Your task to perform on an android device: Clear the cart on amazon. Add usb-c to the cart on amazon Image 0: 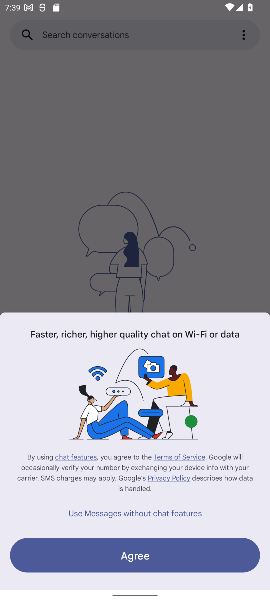
Step 0: press home button
Your task to perform on an android device: Clear the cart on amazon. Add usb-c to the cart on amazon Image 1: 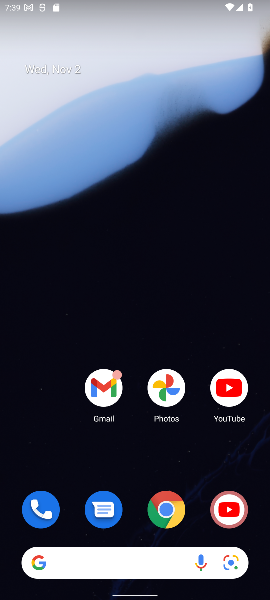
Step 1: click (118, 555)
Your task to perform on an android device: Clear the cart on amazon. Add usb-c to the cart on amazon Image 2: 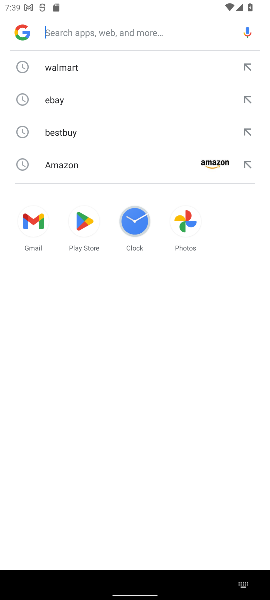
Step 2: type "amazon"
Your task to perform on an android device: Clear the cart on amazon. Add usb-c to the cart on amazon Image 3: 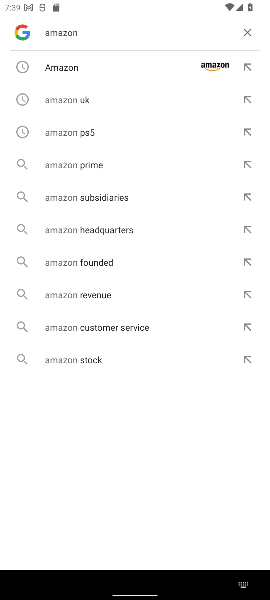
Step 3: click (72, 66)
Your task to perform on an android device: Clear the cart on amazon. Add usb-c to the cart on amazon Image 4: 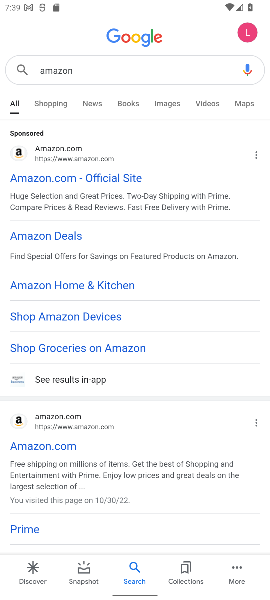
Step 4: click (53, 449)
Your task to perform on an android device: Clear the cart on amazon. Add usb-c to the cart on amazon Image 5: 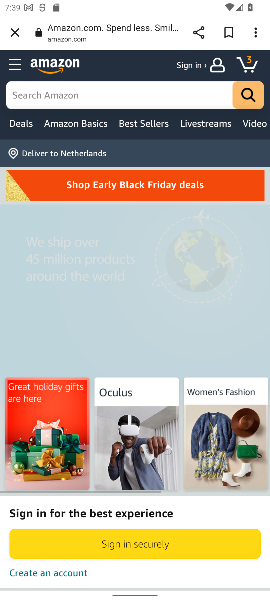
Step 5: click (249, 62)
Your task to perform on an android device: Clear the cart on amazon. Add usb-c to the cart on amazon Image 6: 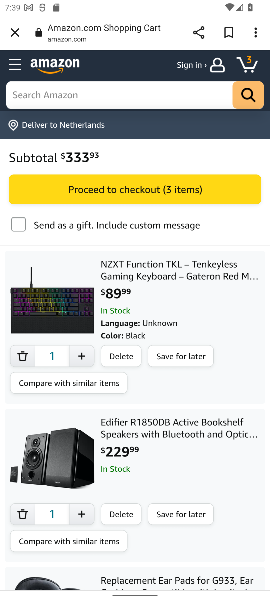
Step 6: click (21, 358)
Your task to perform on an android device: Clear the cart on amazon. Add usb-c to the cart on amazon Image 7: 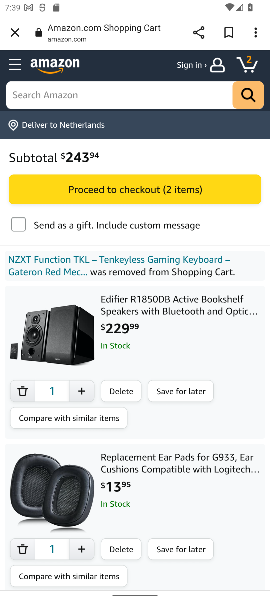
Step 7: click (22, 393)
Your task to perform on an android device: Clear the cart on amazon. Add usb-c to the cart on amazon Image 8: 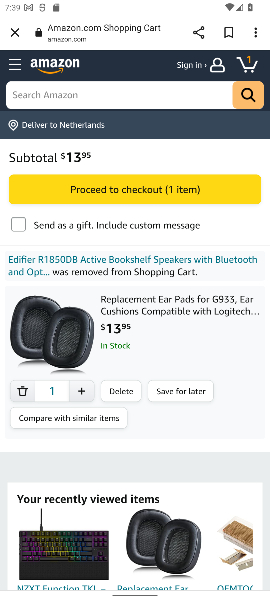
Step 8: click (22, 392)
Your task to perform on an android device: Clear the cart on amazon. Add usb-c to the cart on amazon Image 9: 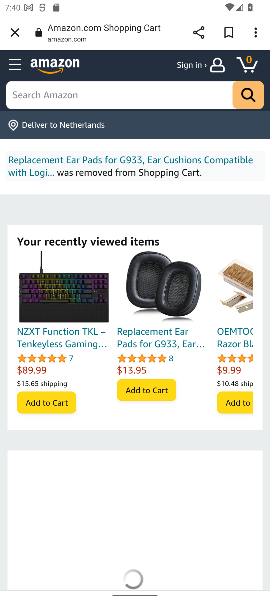
Step 9: click (111, 89)
Your task to perform on an android device: Clear the cart on amazon. Add usb-c to the cart on amazon Image 10: 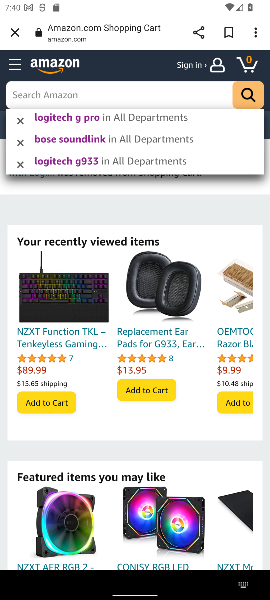
Step 10: type "usb-c "
Your task to perform on an android device: Clear the cart on amazon. Add usb-c to the cart on amazon Image 11: 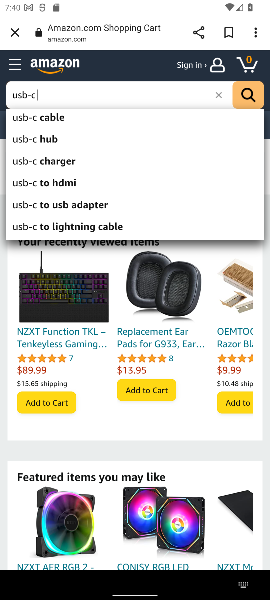
Step 11: click (249, 94)
Your task to perform on an android device: Clear the cart on amazon. Add usb-c to the cart on amazon Image 12: 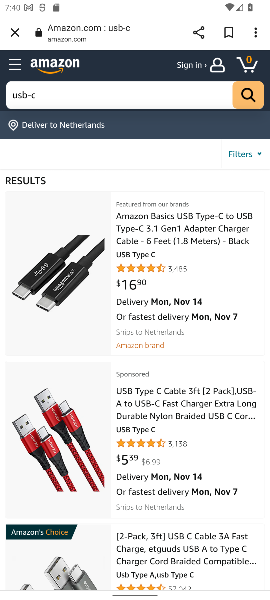
Step 12: click (156, 222)
Your task to perform on an android device: Clear the cart on amazon. Add usb-c to the cart on amazon Image 13: 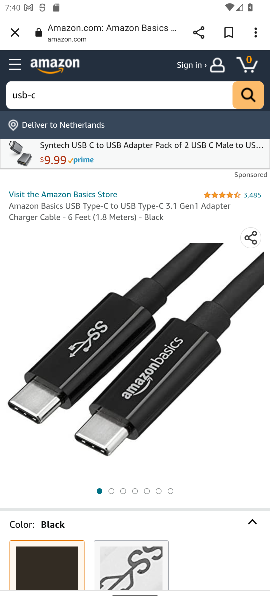
Step 13: drag from (199, 428) to (189, 235)
Your task to perform on an android device: Clear the cart on amazon. Add usb-c to the cart on amazon Image 14: 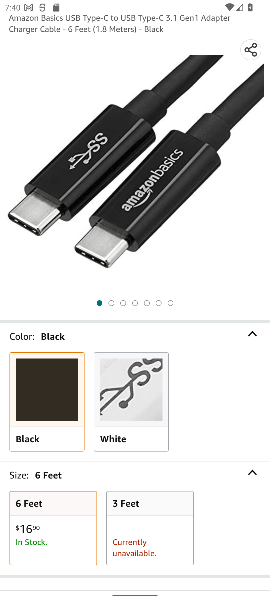
Step 14: drag from (212, 396) to (194, 160)
Your task to perform on an android device: Clear the cart on amazon. Add usb-c to the cart on amazon Image 15: 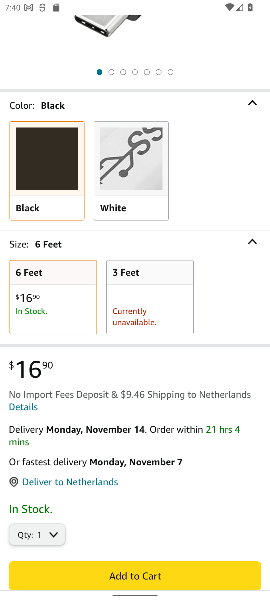
Step 15: drag from (224, 460) to (210, 276)
Your task to perform on an android device: Clear the cart on amazon. Add usb-c to the cart on amazon Image 16: 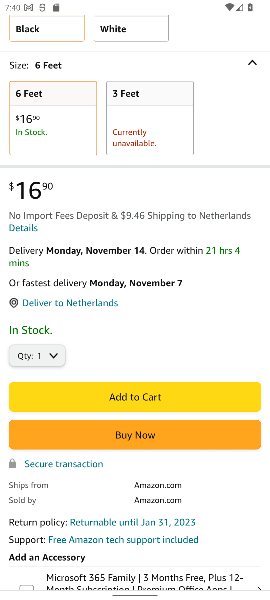
Step 16: click (154, 401)
Your task to perform on an android device: Clear the cart on amazon. Add usb-c to the cart on amazon Image 17: 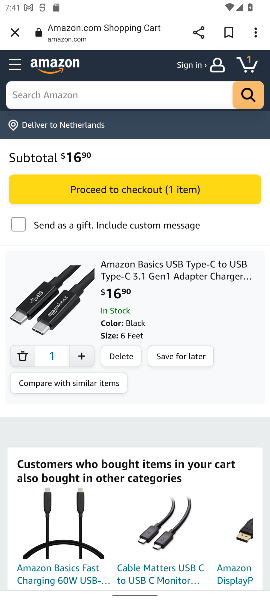
Step 17: task complete